Your task to perform on an android device: turn on the 12-hour format for clock Image 0: 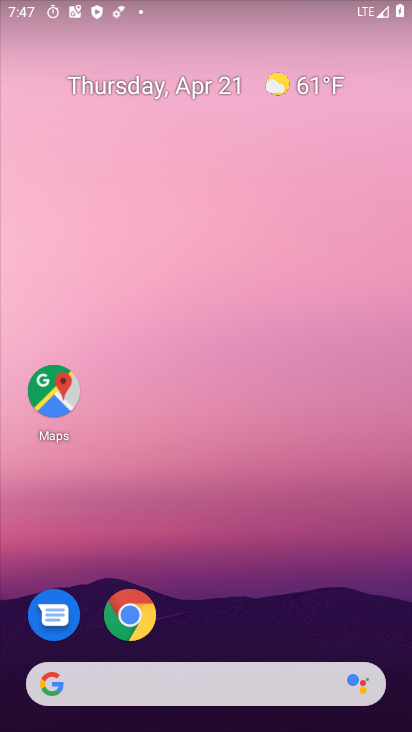
Step 0: drag from (204, 622) to (287, 138)
Your task to perform on an android device: turn on the 12-hour format for clock Image 1: 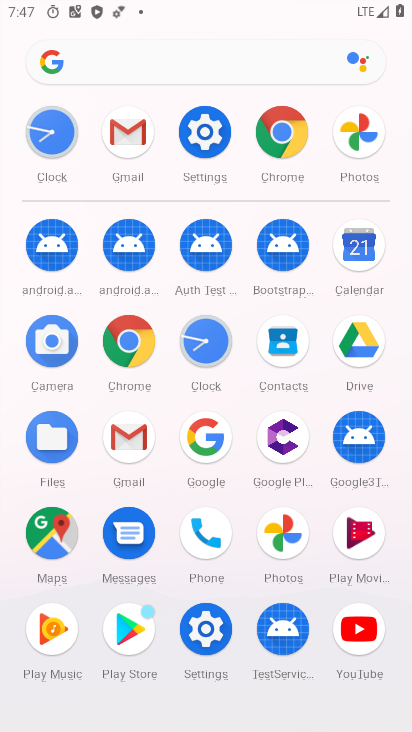
Step 1: click (204, 334)
Your task to perform on an android device: turn on the 12-hour format for clock Image 2: 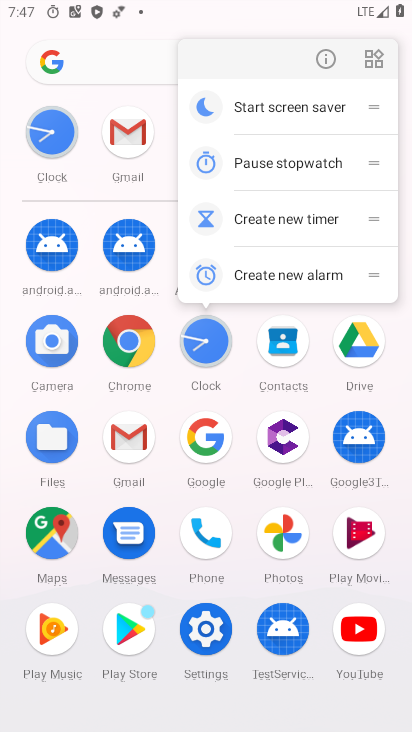
Step 2: click (321, 56)
Your task to perform on an android device: turn on the 12-hour format for clock Image 3: 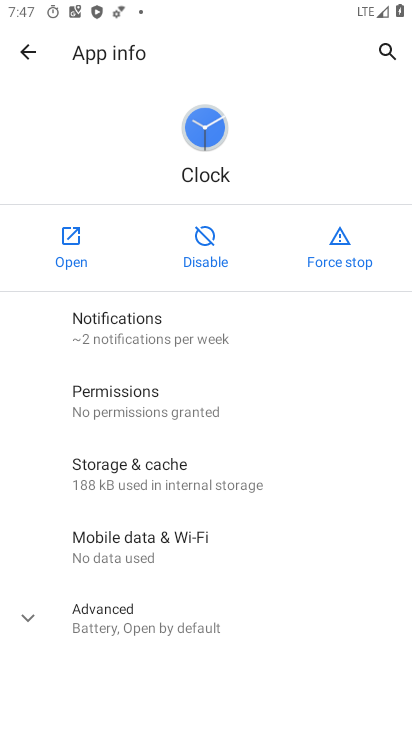
Step 3: click (74, 251)
Your task to perform on an android device: turn on the 12-hour format for clock Image 4: 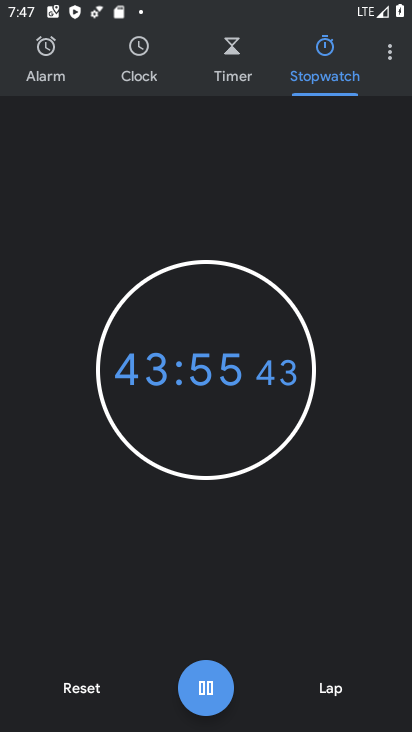
Step 4: click (213, 704)
Your task to perform on an android device: turn on the 12-hour format for clock Image 5: 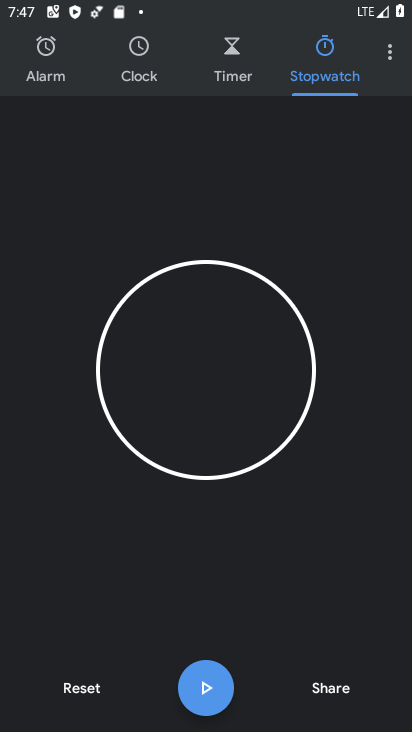
Step 5: click (108, 691)
Your task to perform on an android device: turn on the 12-hour format for clock Image 6: 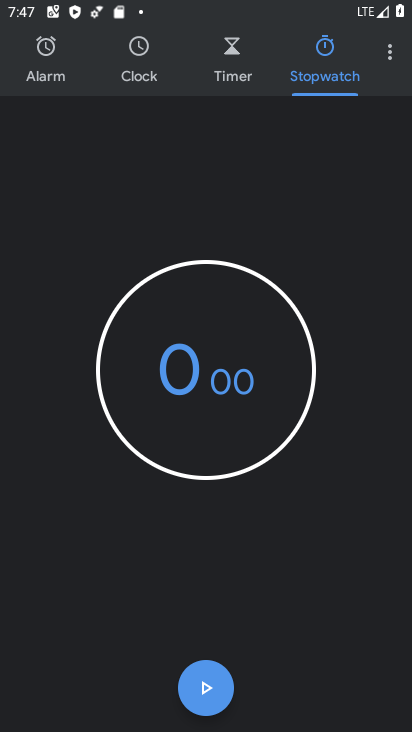
Step 6: drag from (392, 55) to (289, 109)
Your task to perform on an android device: turn on the 12-hour format for clock Image 7: 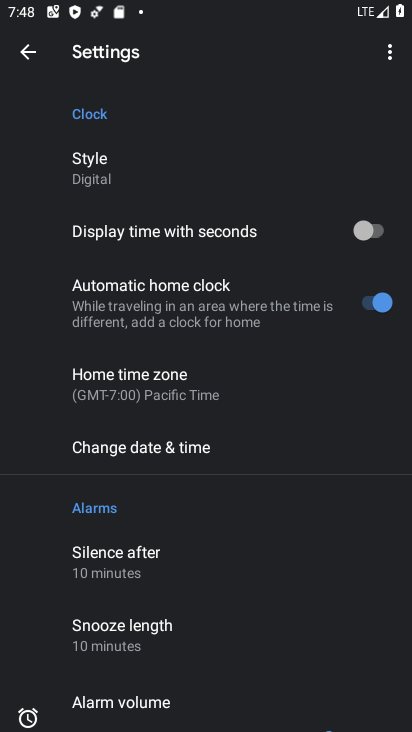
Step 7: drag from (235, 633) to (291, 339)
Your task to perform on an android device: turn on the 12-hour format for clock Image 8: 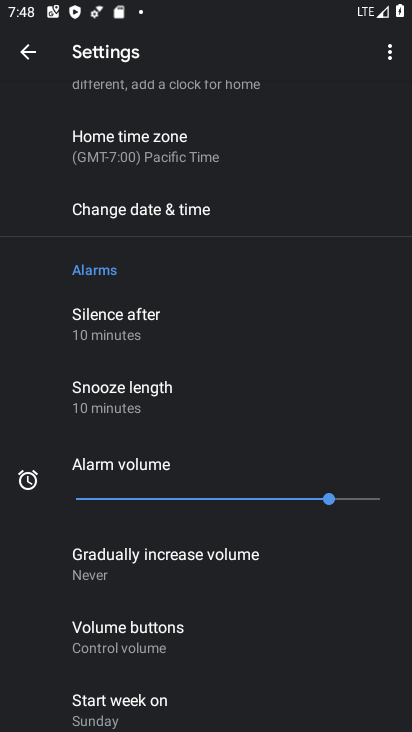
Step 8: click (154, 220)
Your task to perform on an android device: turn on the 12-hour format for clock Image 9: 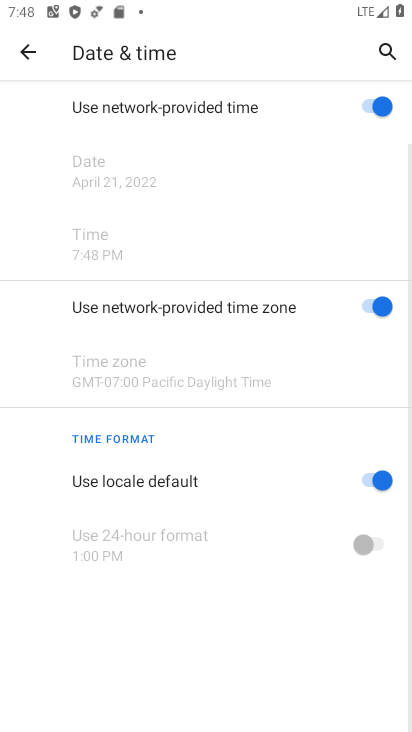
Step 9: task complete